Your task to perform on an android device: Clear all items from cart on walmart. Search for energizer triple a on walmart, select the first entry, and add it to the cart. Image 0: 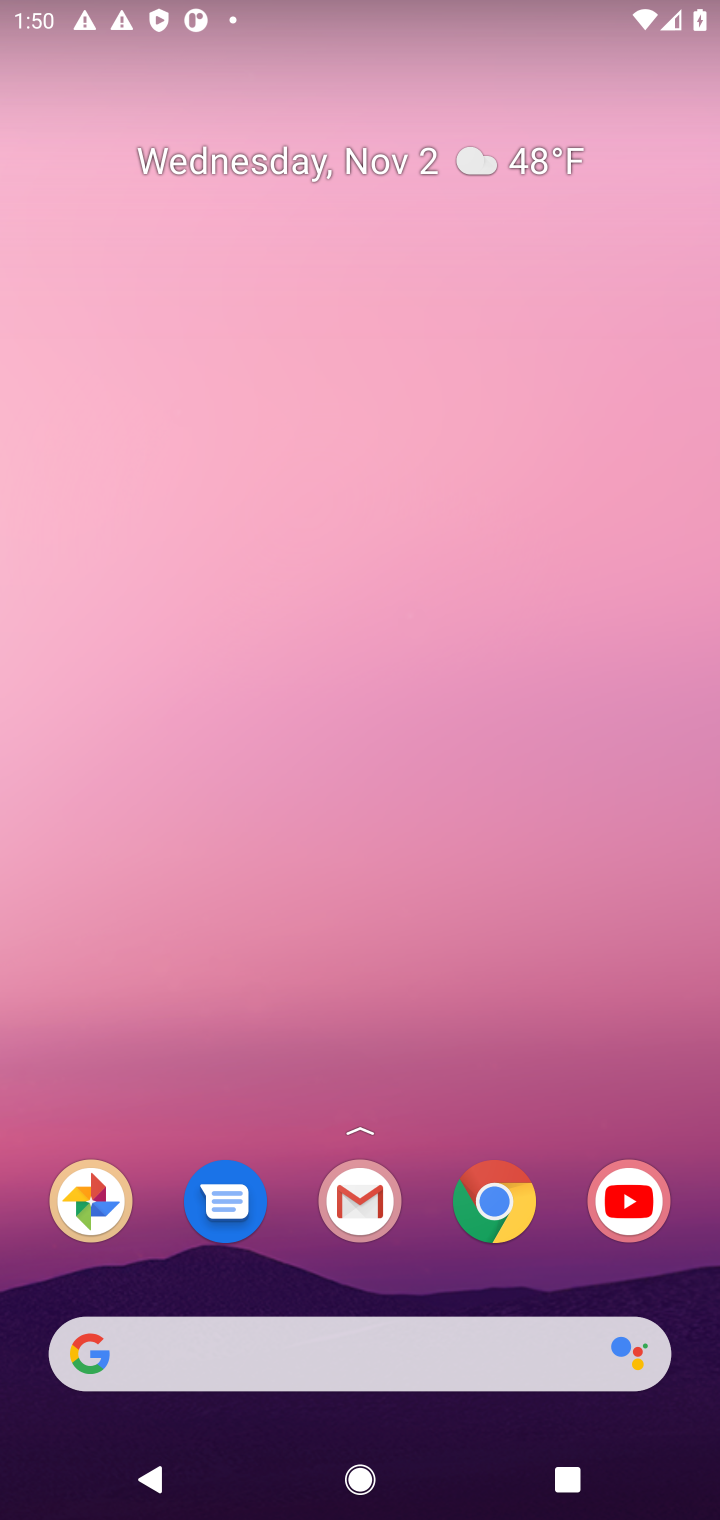
Step 0: click (490, 1196)
Your task to perform on an android device: Clear all items from cart on walmart. Search for energizer triple a on walmart, select the first entry, and add it to the cart. Image 1: 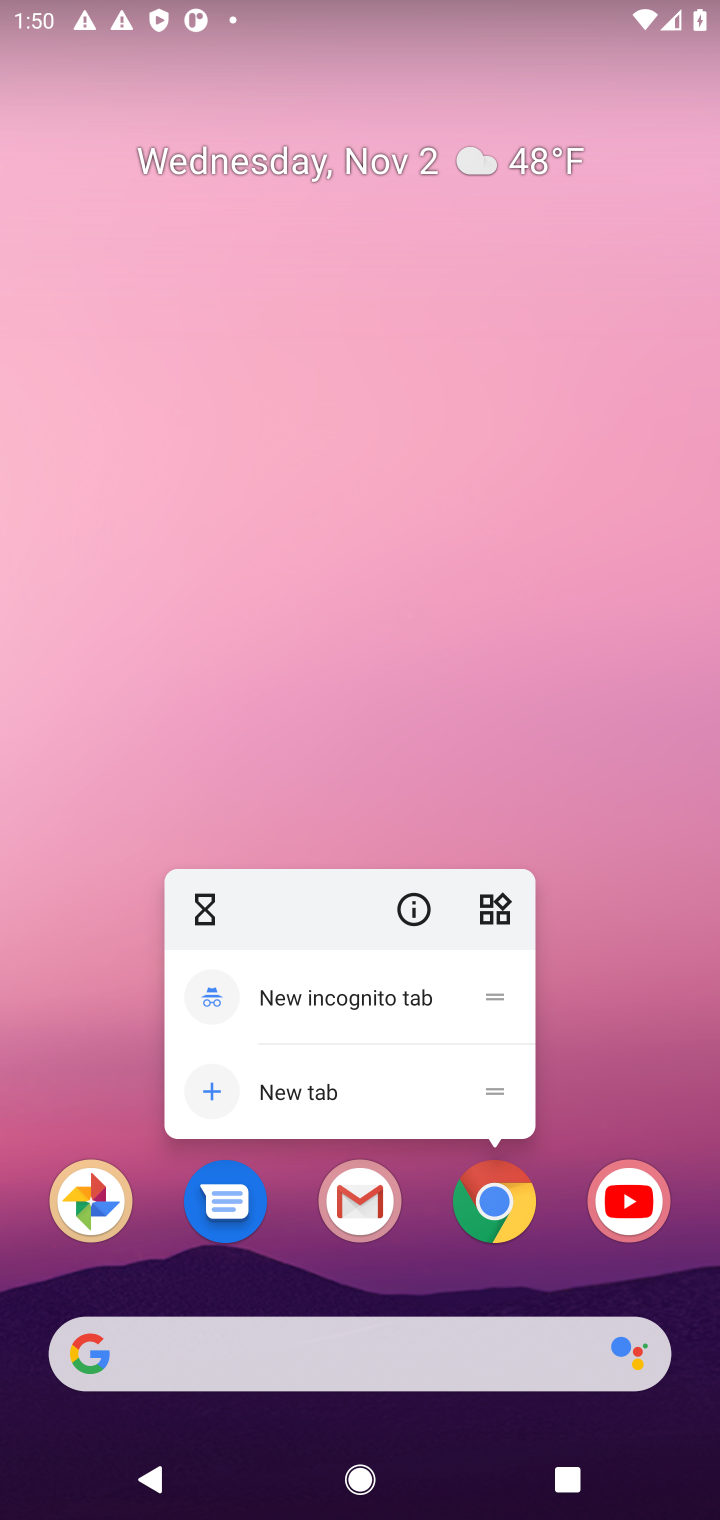
Step 1: click (490, 1196)
Your task to perform on an android device: Clear all items from cart on walmart. Search for energizer triple a on walmart, select the first entry, and add it to the cart. Image 2: 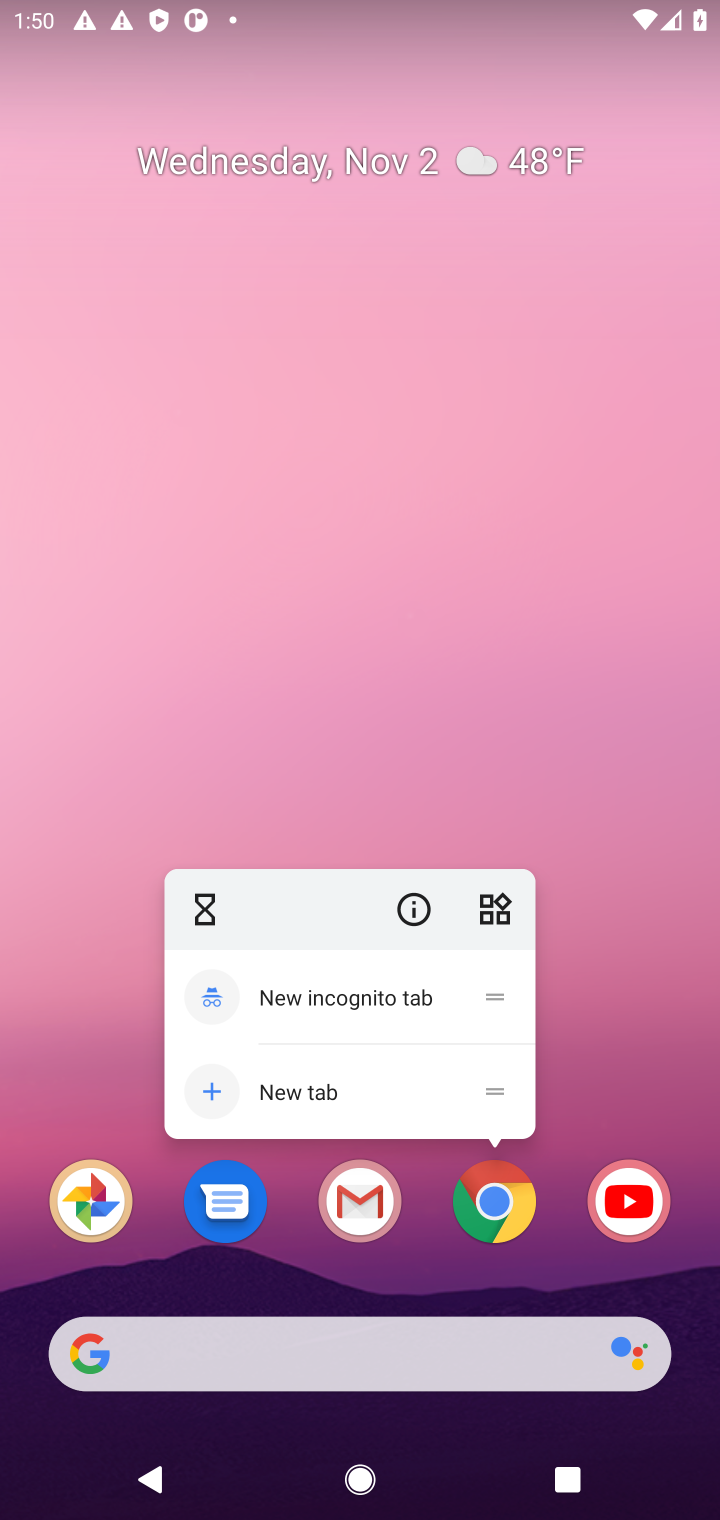
Step 2: click (490, 1196)
Your task to perform on an android device: Clear all items from cart on walmart. Search for energizer triple a on walmart, select the first entry, and add it to the cart. Image 3: 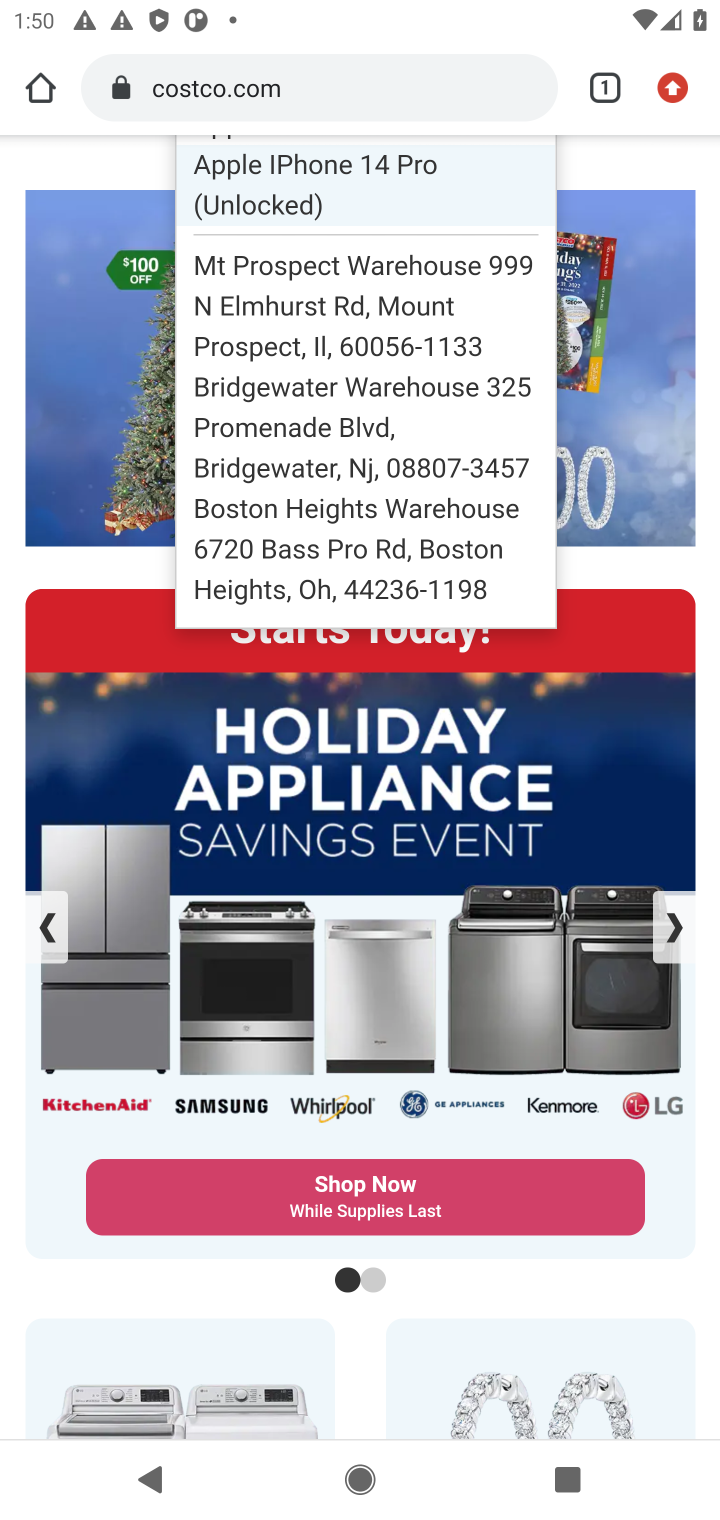
Step 3: click (391, 75)
Your task to perform on an android device: Clear all items from cart on walmart. Search for energizer triple a on walmart, select the first entry, and add it to the cart. Image 4: 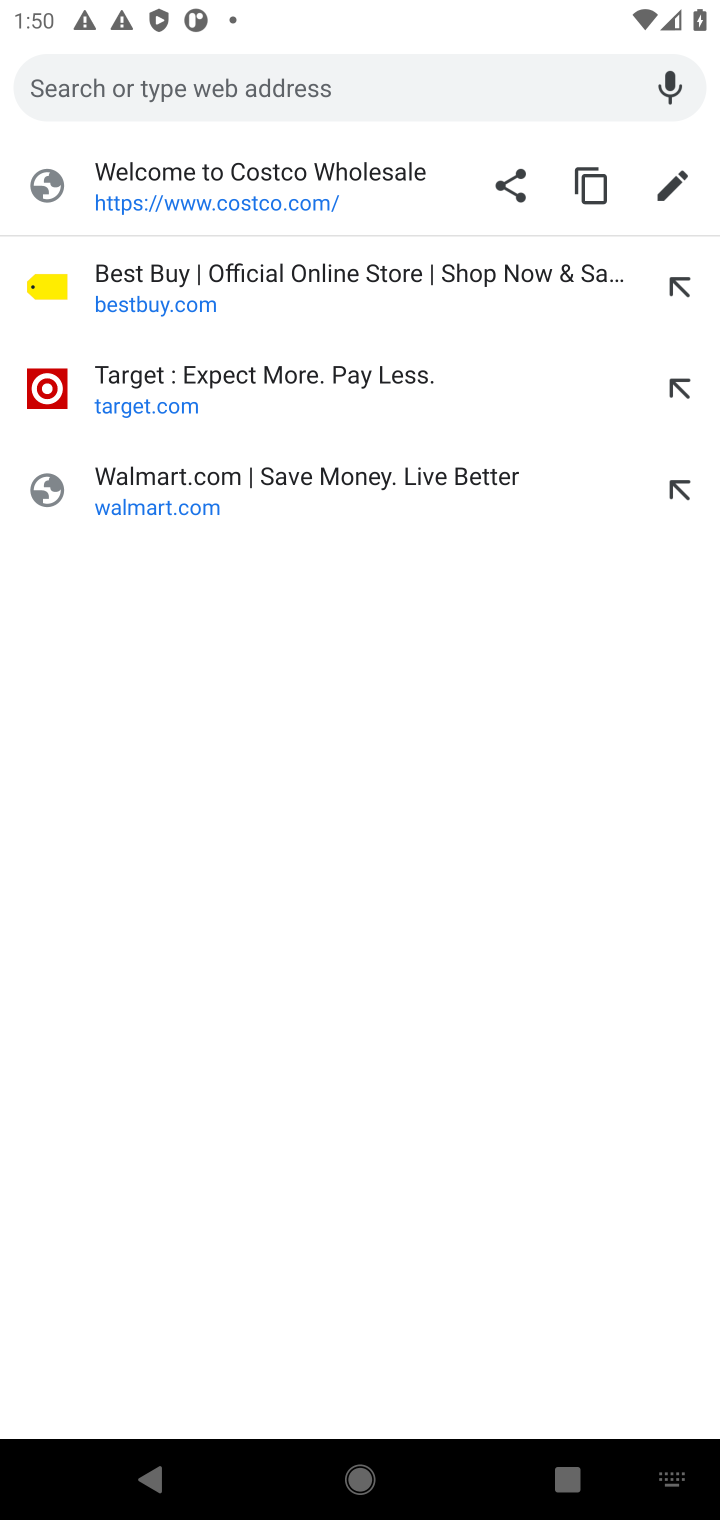
Step 4: type "walmart"
Your task to perform on an android device: Clear all items from cart on walmart. Search for energizer triple a on walmart, select the first entry, and add it to the cart. Image 5: 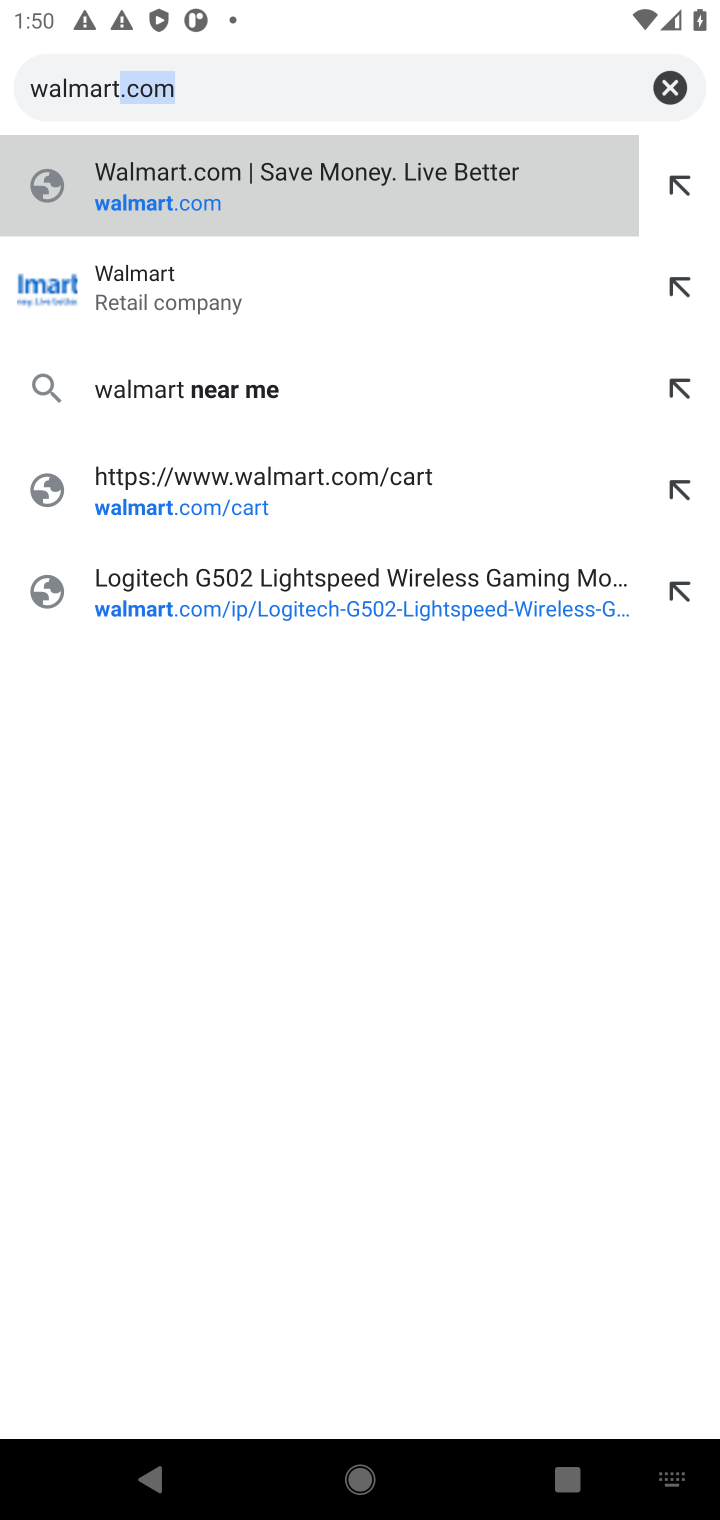
Step 5: click (341, 68)
Your task to perform on an android device: Clear all items from cart on walmart. Search for energizer triple a on walmart, select the first entry, and add it to the cart. Image 6: 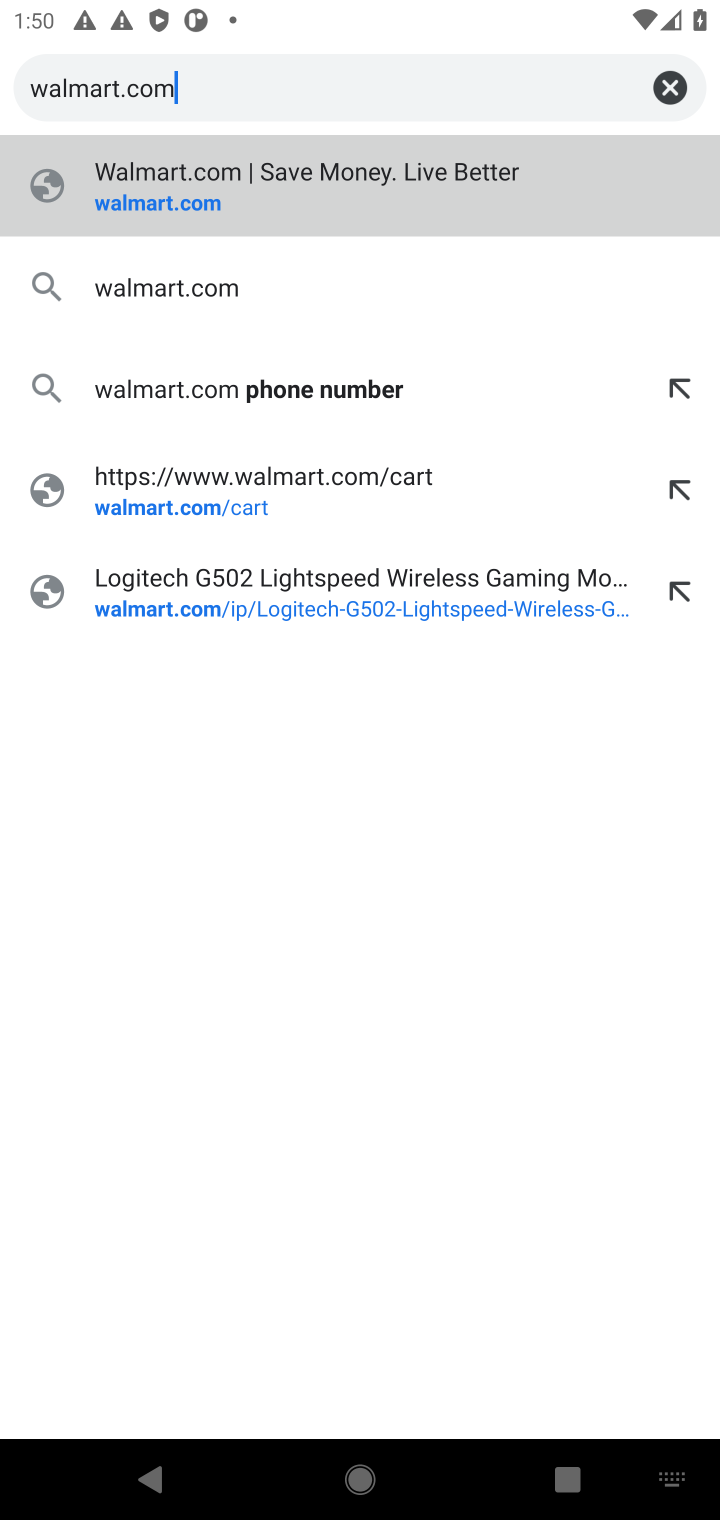
Step 6: click (152, 283)
Your task to perform on an android device: Clear all items from cart on walmart. Search for energizer triple a on walmart, select the first entry, and add it to the cart. Image 7: 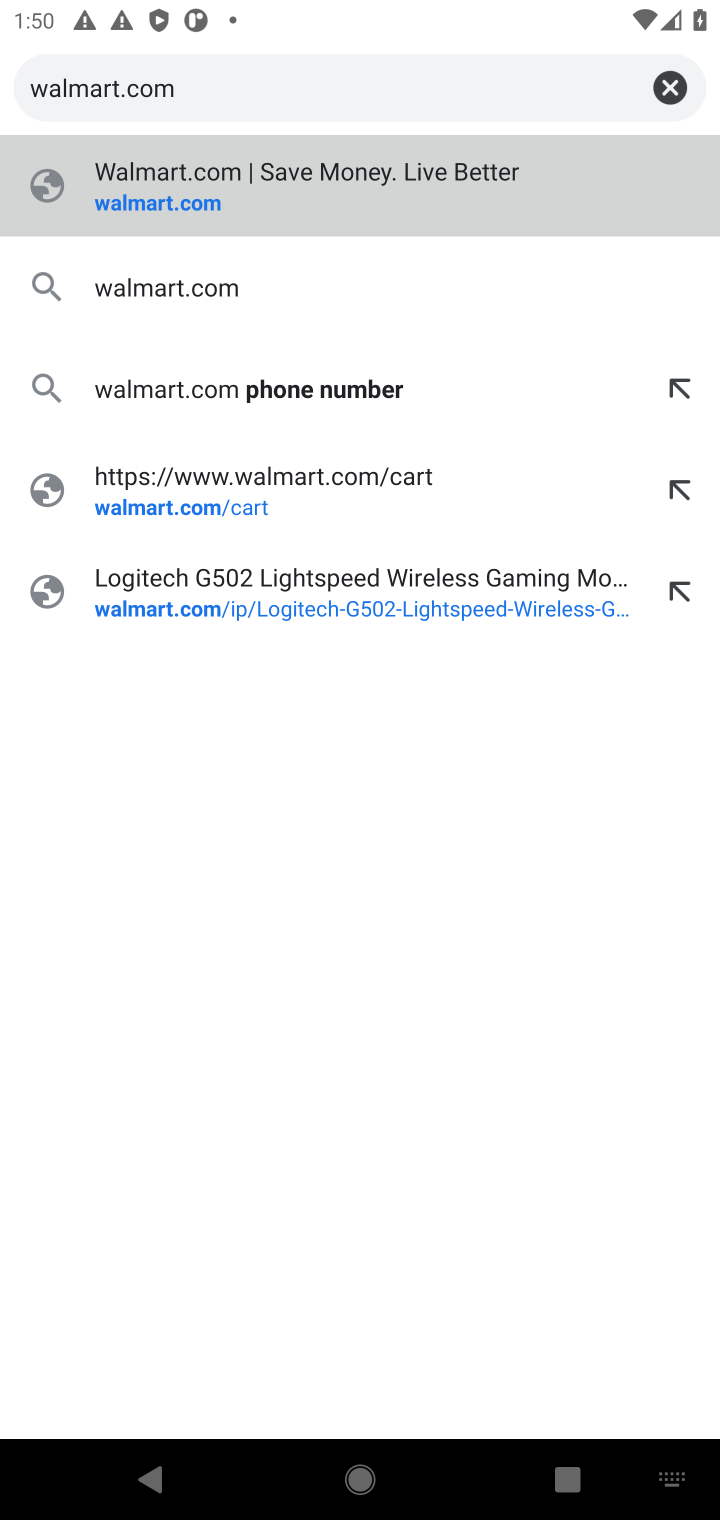
Step 7: click (174, 277)
Your task to perform on an android device: Clear all items from cart on walmart. Search for energizer triple a on walmart, select the first entry, and add it to the cart. Image 8: 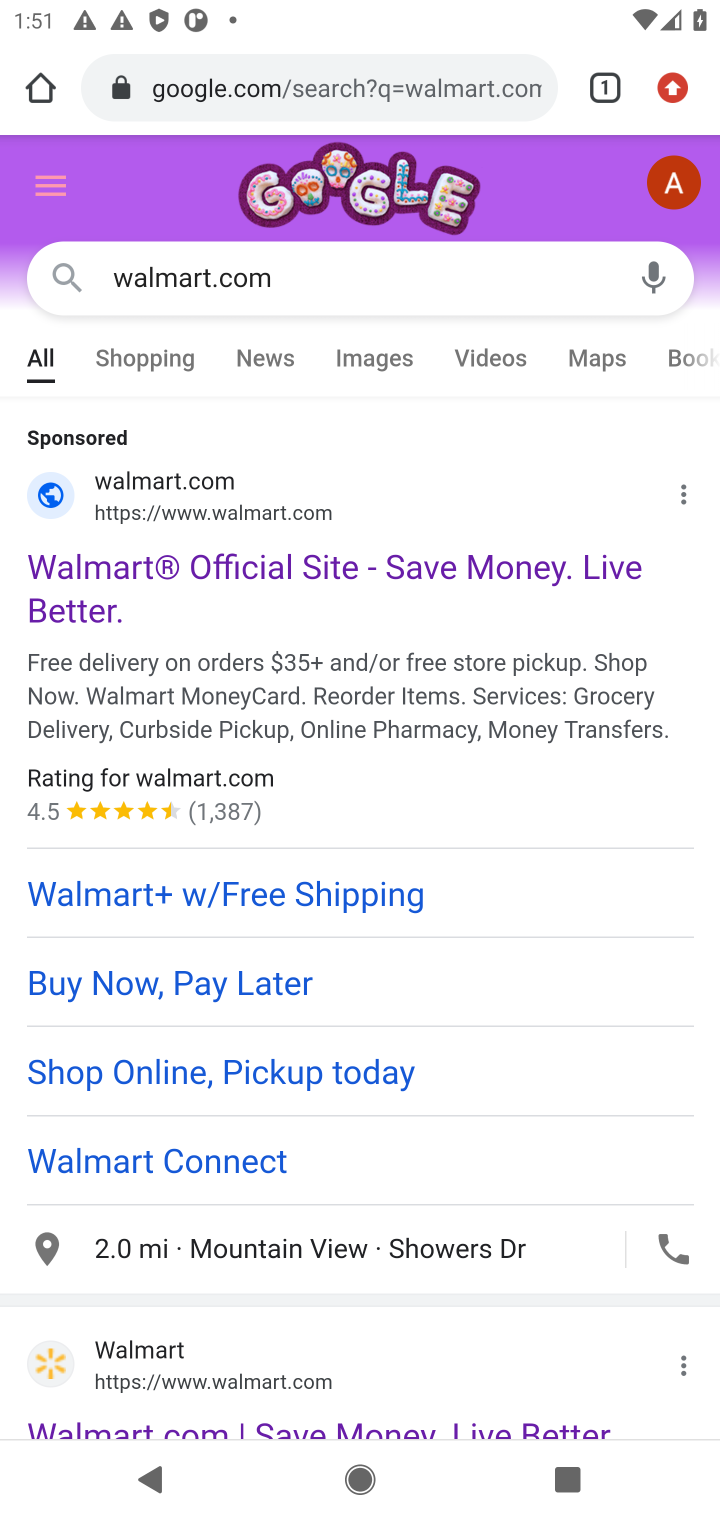
Step 8: click (190, 474)
Your task to perform on an android device: Clear all items from cart on walmart. Search for energizer triple a on walmart, select the first entry, and add it to the cart. Image 9: 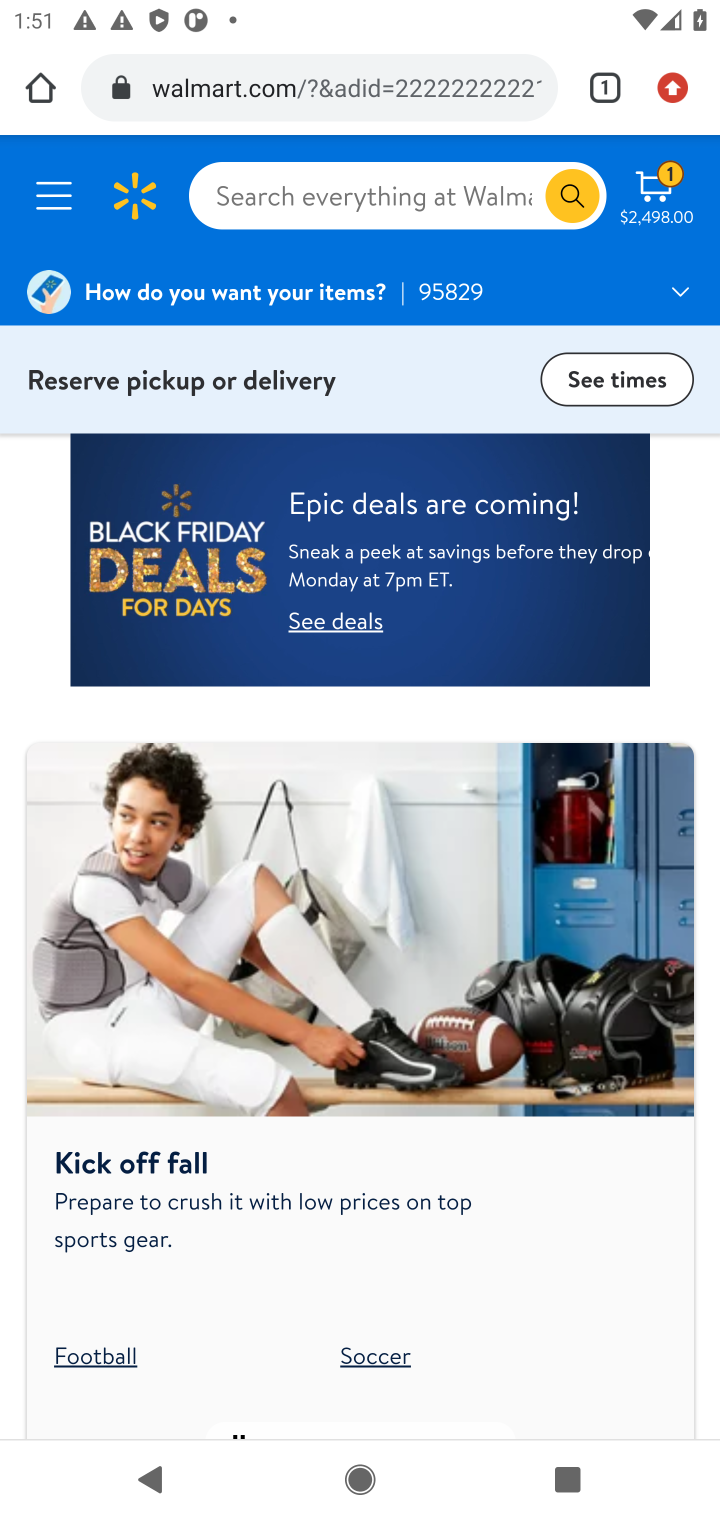
Step 9: click (663, 192)
Your task to perform on an android device: Clear all items from cart on walmart. Search for energizer triple a on walmart, select the first entry, and add it to the cart. Image 10: 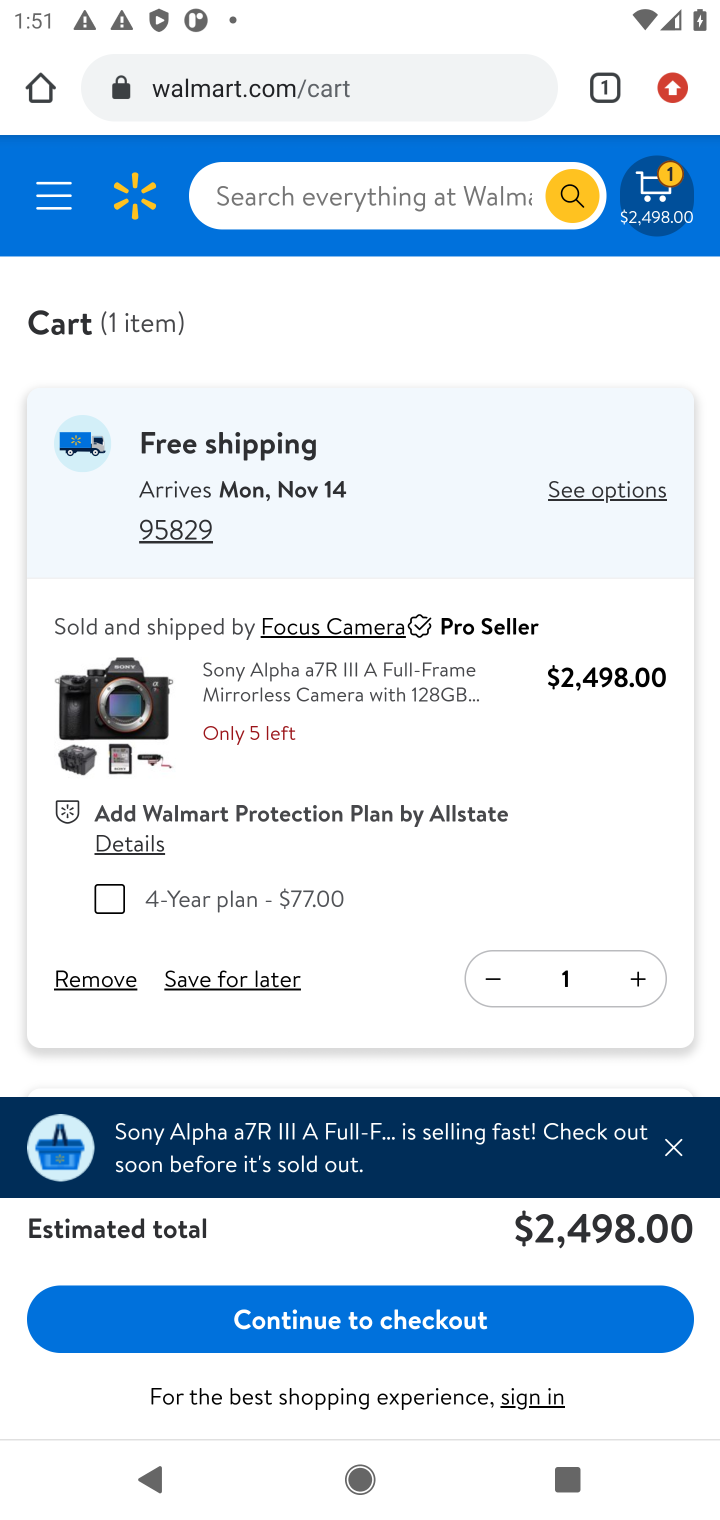
Step 10: click (99, 986)
Your task to perform on an android device: Clear all items from cart on walmart. Search for energizer triple a on walmart, select the first entry, and add it to the cart. Image 11: 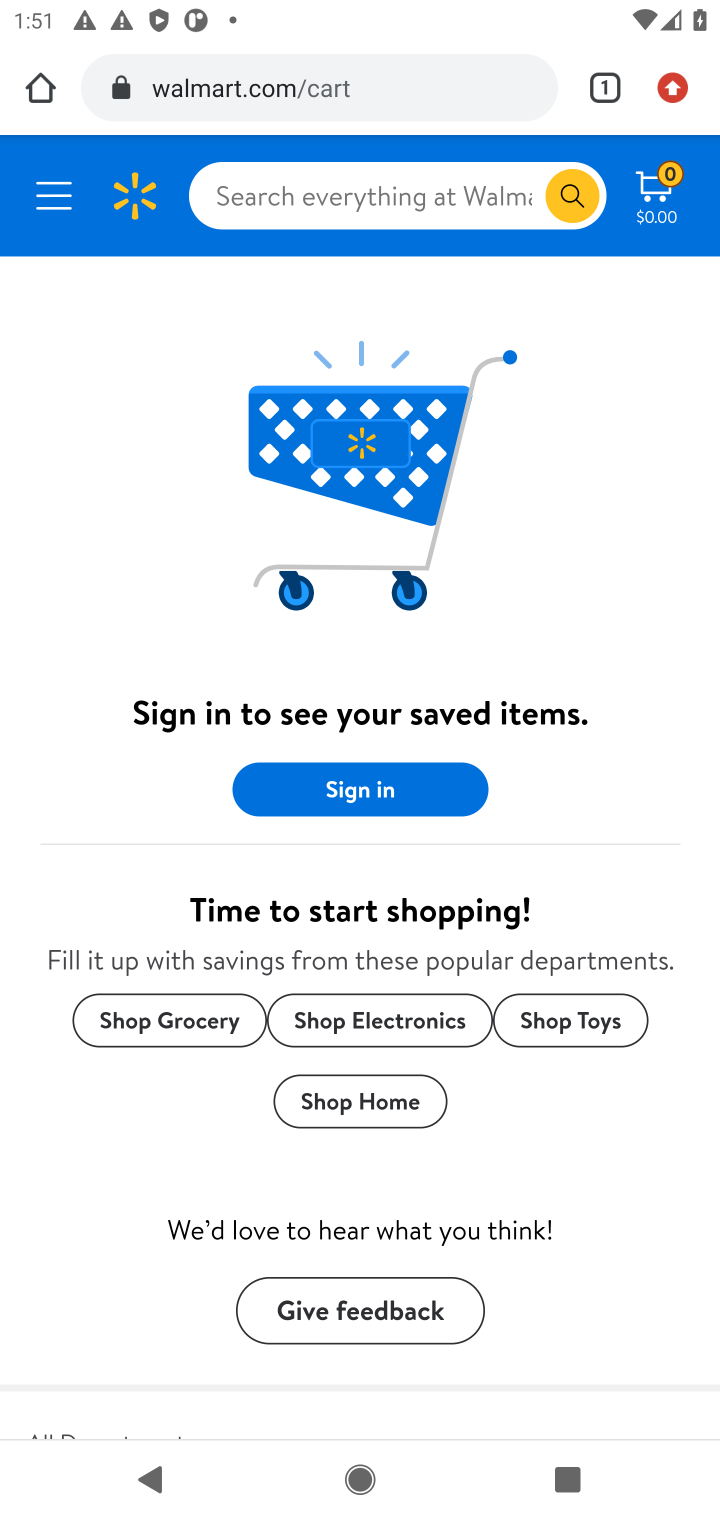
Step 11: click (449, 198)
Your task to perform on an android device: Clear all items from cart on walmart. Search for energizer triple a on walmart, select the first entry, and add it to the cart. Image 12: 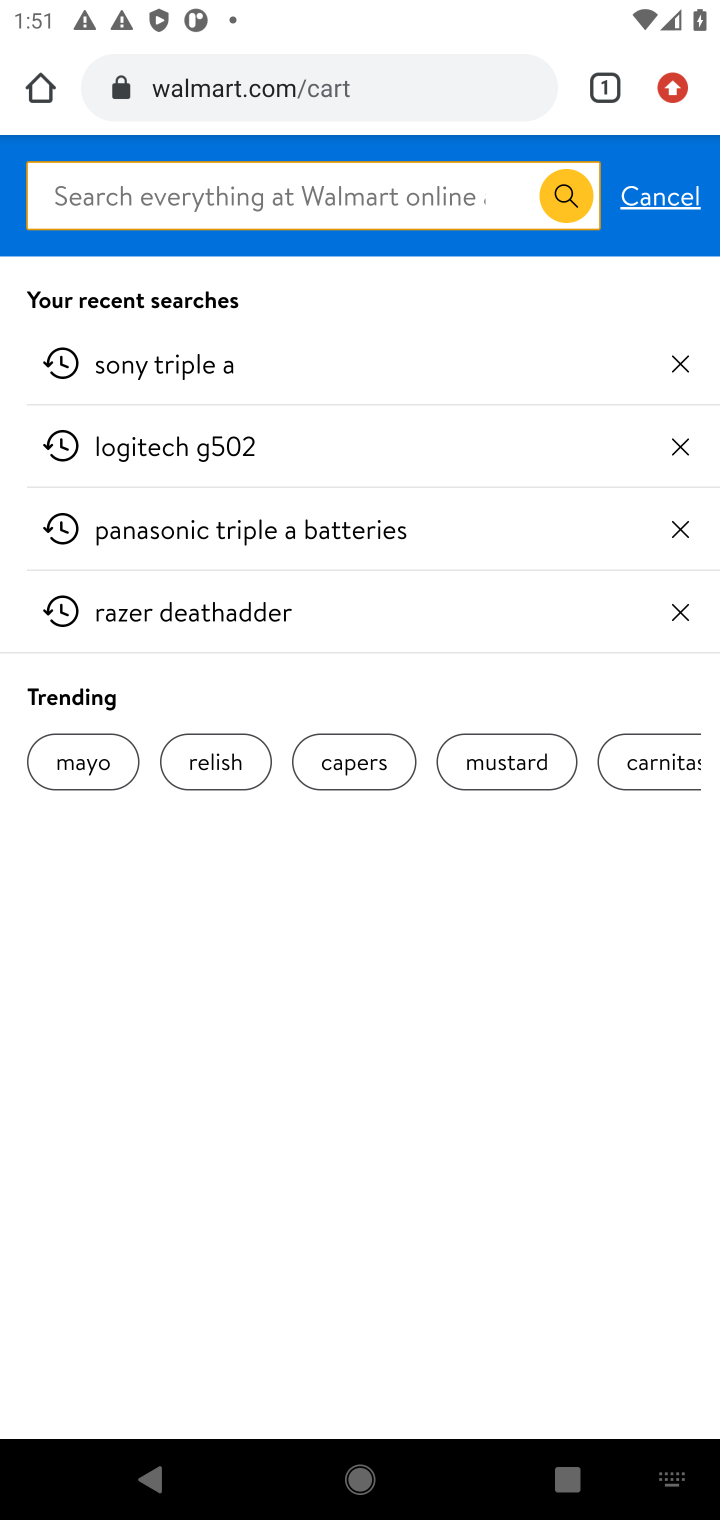
Step 12: type " energizer triple a "
Your task to perform on an android device: Clear all items from cart on walmart. Search for energizer triple a on walmart, select the first entry, and add it to the cart. Image 13: 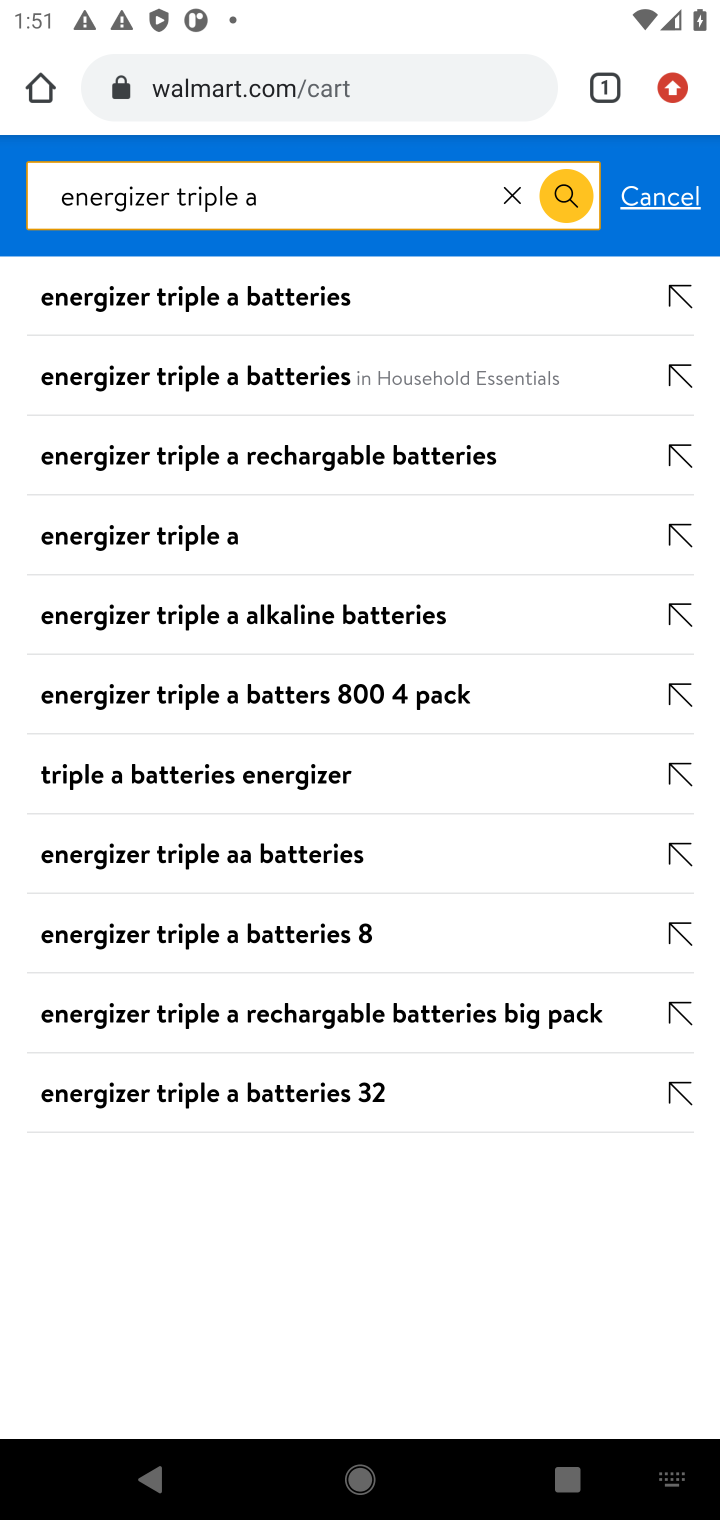
Step 13: click (190, 524)
Your task to perform on an android device: Clear all items from cart on walmart. Search for energizer triple a on walmart, select the first entry, and add it to the cart. Image 14: 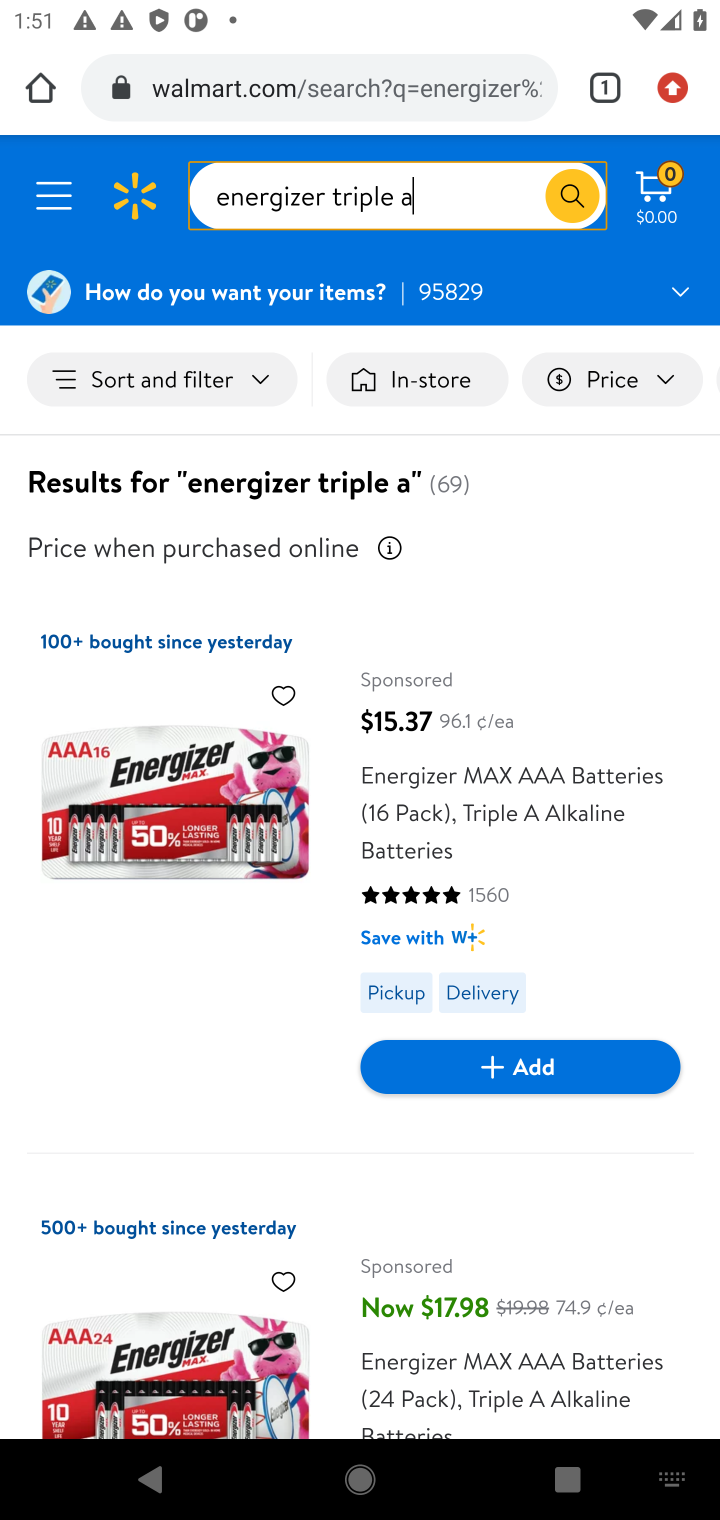
Step 14: click (210, 836)
Your task to perform on an android device: Clear all items from cart on walmart. Search for energizer triple a on walmart, select the first entry, and add it to the cart. Image 15: 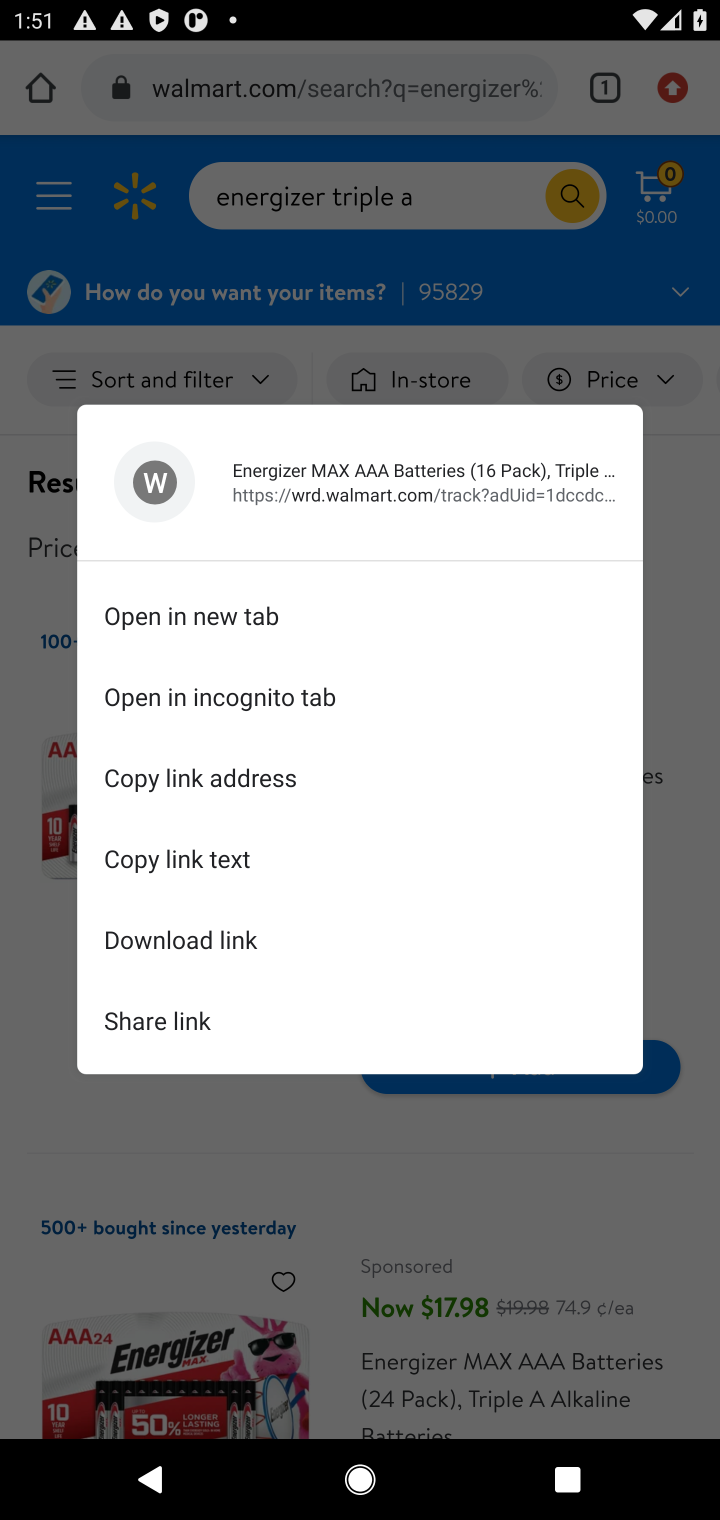
Step 15: click (370, 1166)
Your task to perform on an android device: Clear all items from cart on walmart. Search for energizer triple a on walmart, select the first entry, and add it to the cart. Image 16: 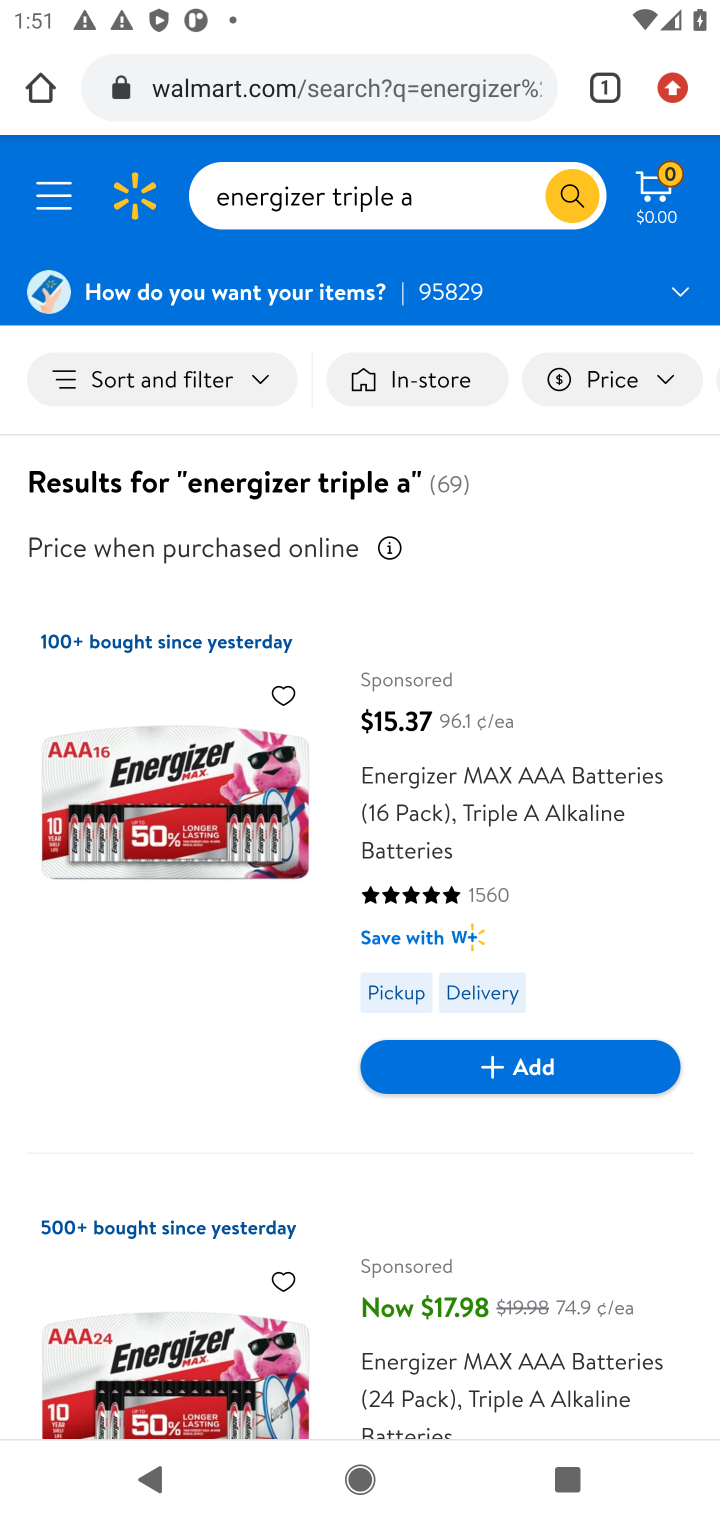
Step 16: click (92, 800)
Your task to perform on an android device: Clear all items from cart on walmart. Search for energizer triple a on walmart, select the first entry, and add it to the cart. Image 17: 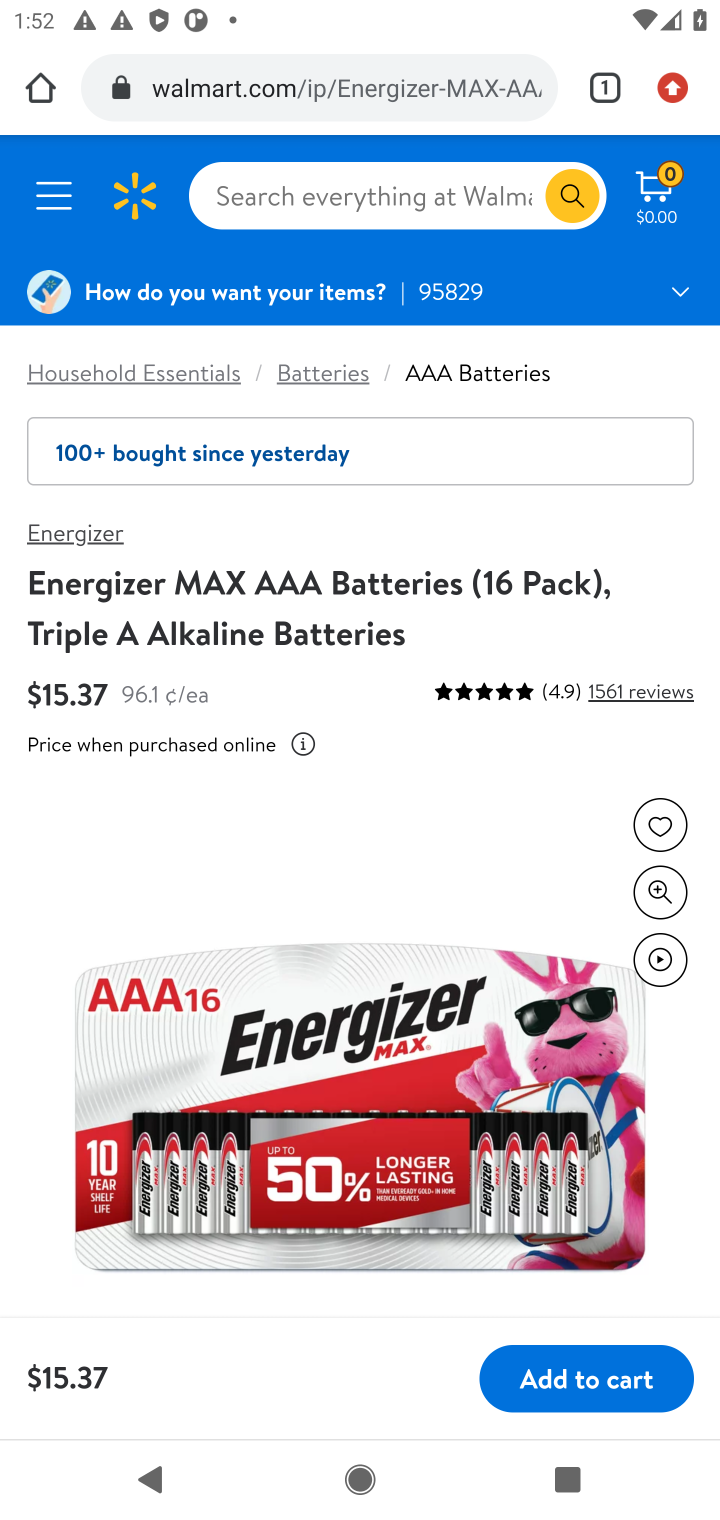
Step 17: click (597, 1371)
Your task to perform on an android device: Clear all items from cart on walmart. Search for energizer triple a on walmart, select the first entry, and add it to the cart. Image 18: 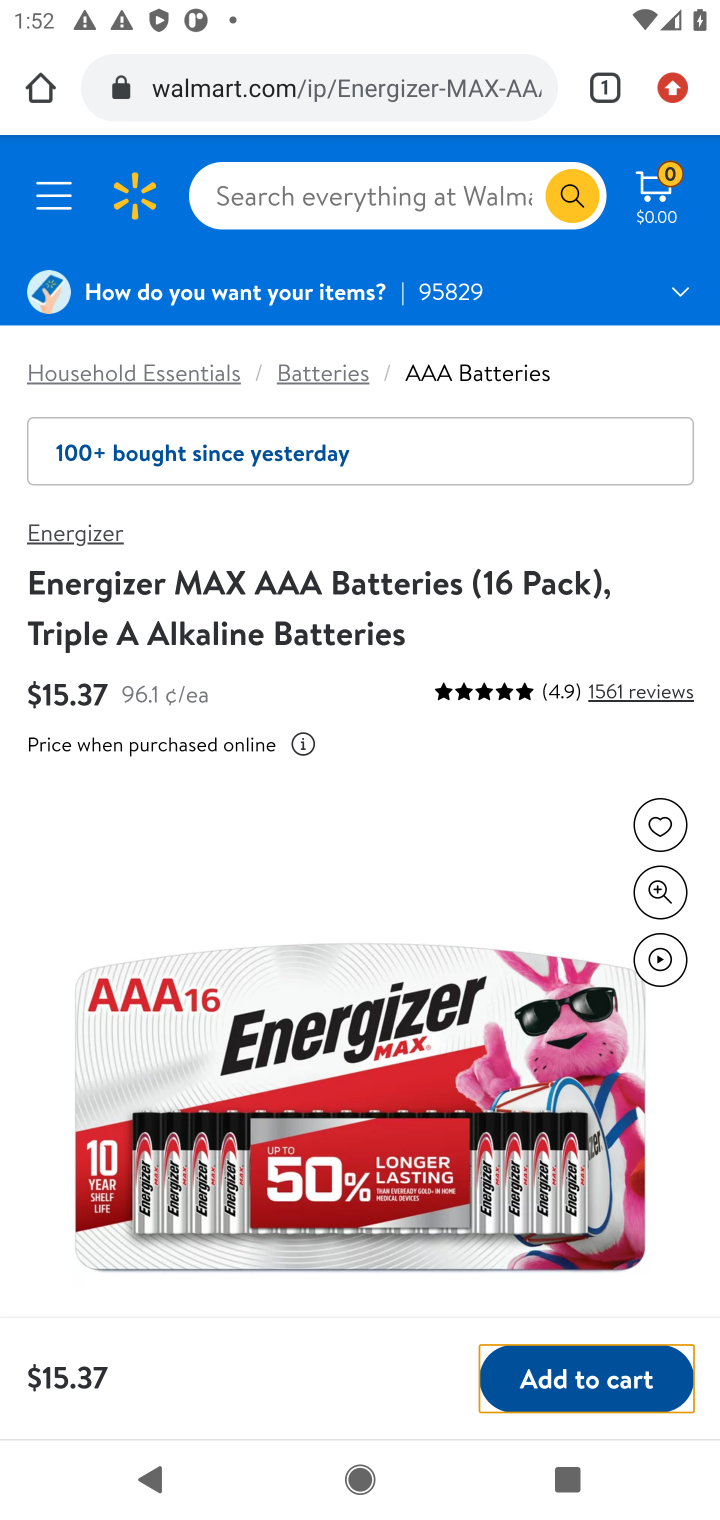
Step 18: click (588, 1375)
Your task to perform on an android device: Clear all items from cart on walmart. Search for energizer triple a on walmart, select the first entry, and add it to the cart. Image 19: 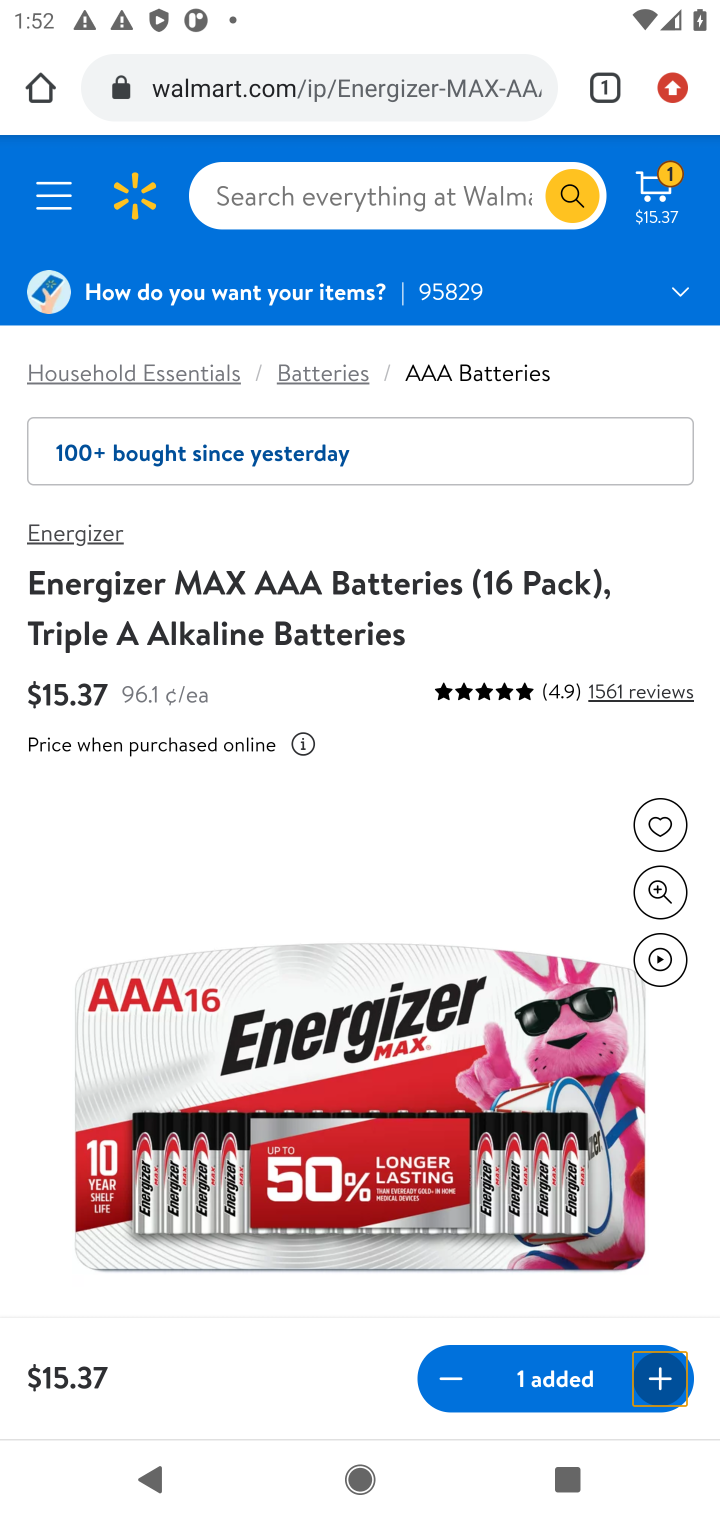
Step 19: task complete